Your task to perform on an android device: empty trash in the gmail app Image 0: 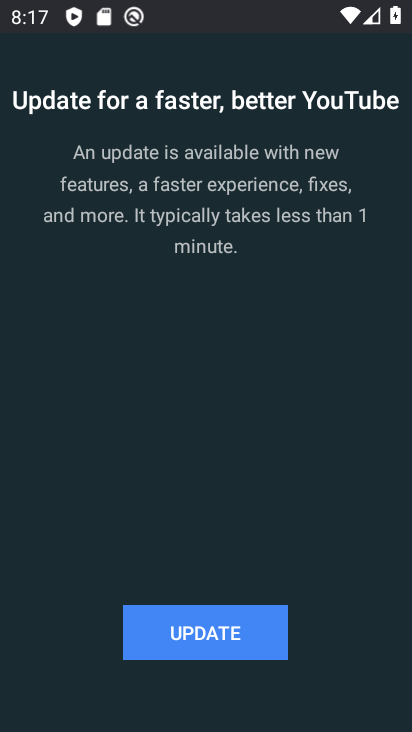
Step 0: press home button
Your task to perform on an android device: empty trash in the gmail app Image 1: 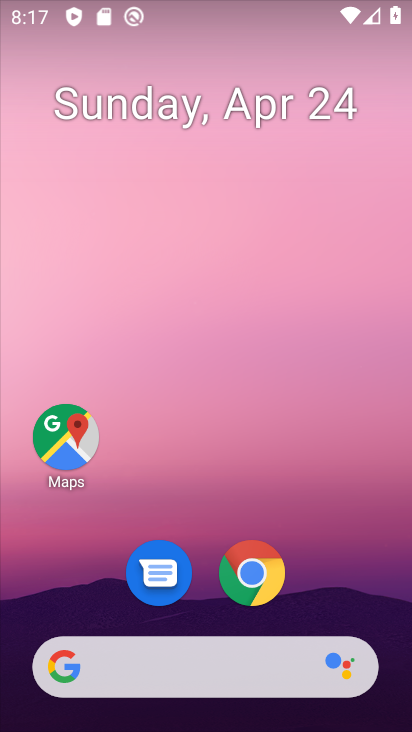
Step 1: drag from (316, 579) to (294, 118)
Your task to perform on an android device: empty trash in the gmail app Image 2: 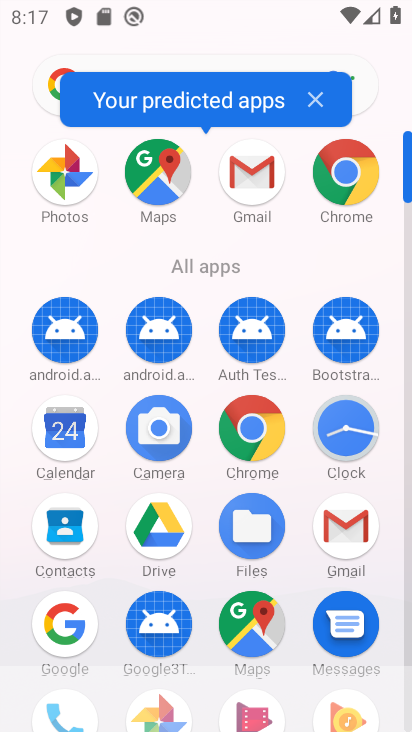
Step 2: click (357, 522)
Your task to perform on an android device: empty trash in the gmail app Image 3: 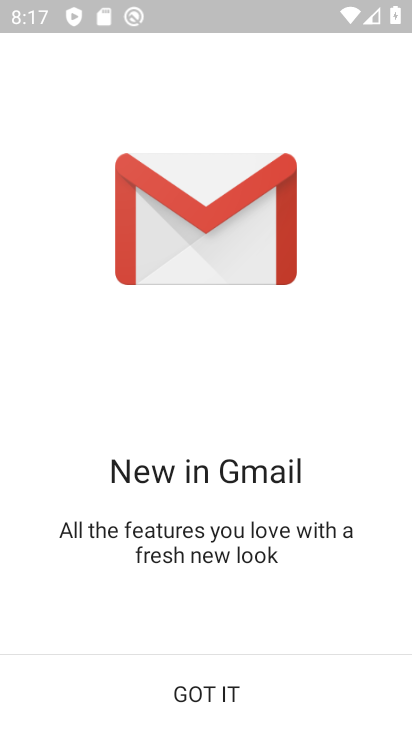
Step 3: click (198, 690)
Your task to perform on an android device: empty trash in the gmail app Image 4: 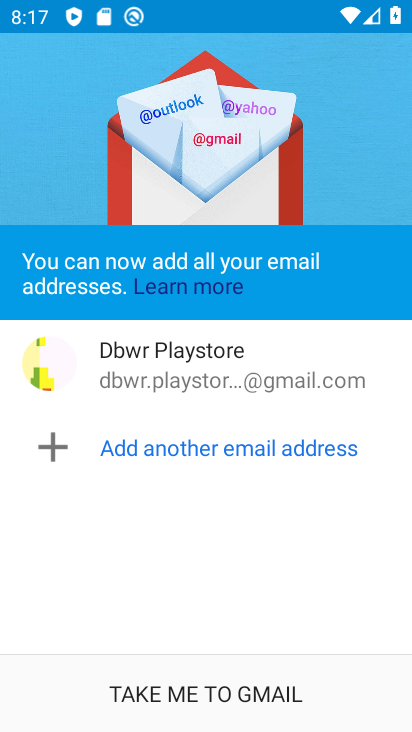
Step 4: click (198, 690)
Your task to perform on an android device: empty trash in the gmail app Image 5: 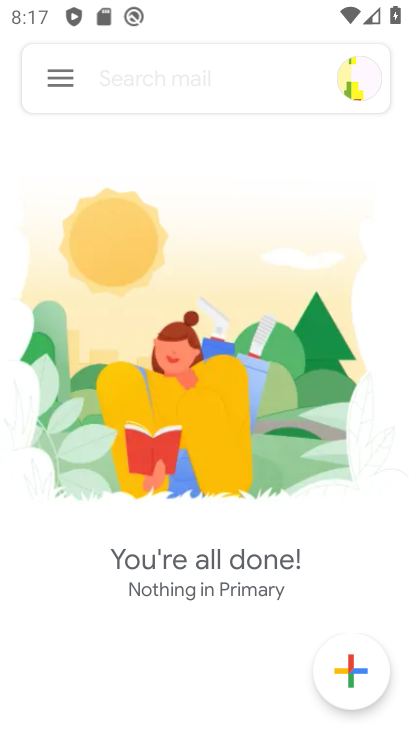
Step 5: click (53, 72)
Your task to perform on an android device: empty trash in the gmail app Image 6: 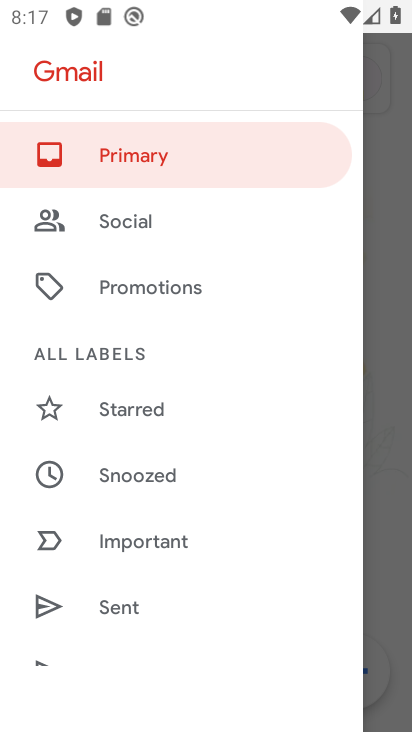
Step 6: drag from (183, 597) to (189, 231)
Your task to perform on an android device: empty trash in the gmail app Image 7: 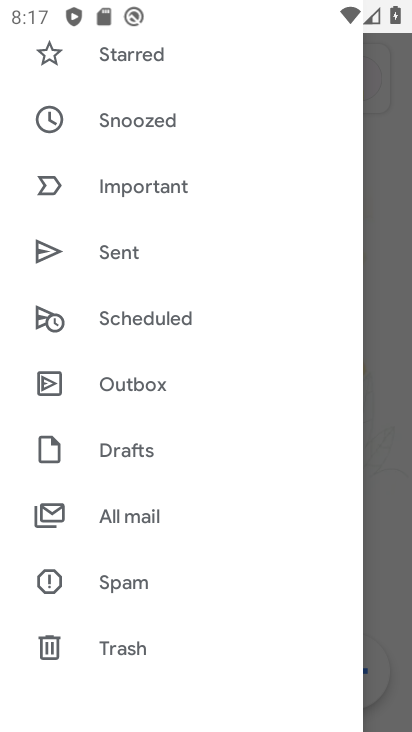
Step 7: click (124, 645)
Your task to perform on an android device: empty trash in the gmail app Image 8: 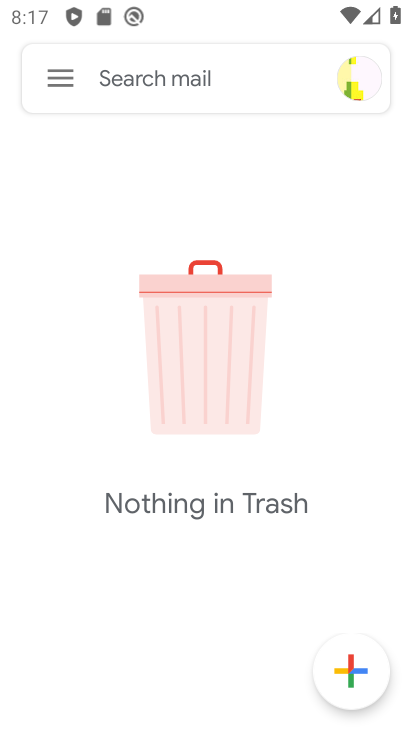
Step 8: task complete